Your task to perform on an android device: Go to Yahoo.com Image 0: 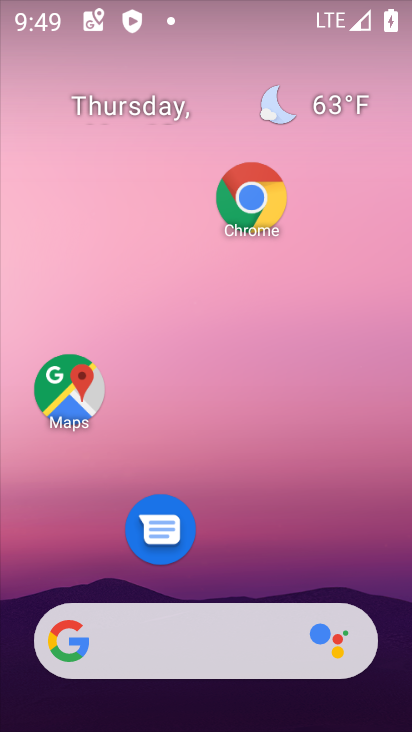
Step 0: drag from (258, 576) to (253, 103)
Your task to perform on an android device: Go to Yahoo.com Image 1: 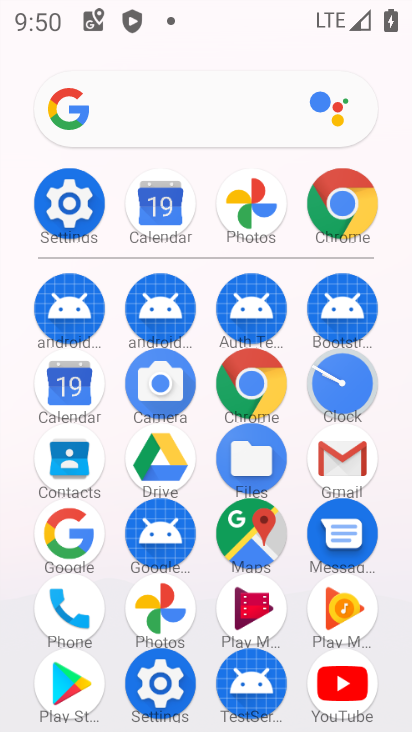
Step 1: click (346, 219)
Your task to perform on an android device: Go to Yahoo.com Image 2: 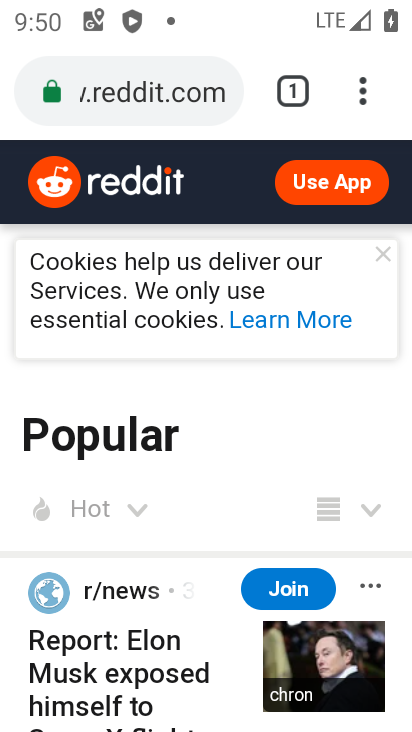
Step 2: click (195, 97)
Your task to perform on an android device: Go to Yahoo.com Image 3: 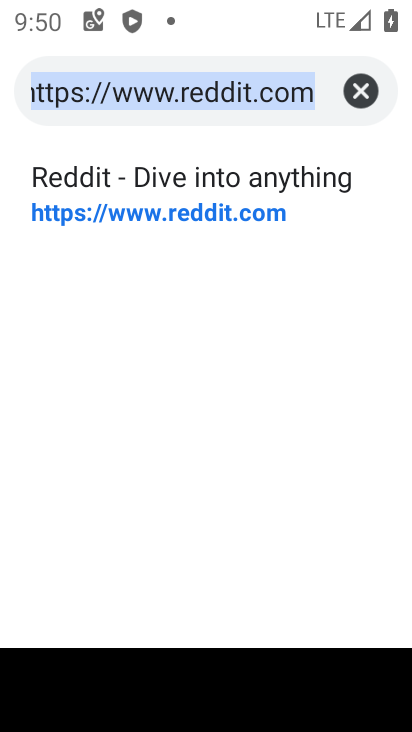
Step 3: type "yahoo"
Your task to perform on an android device: Go to Yahoo.com Image 4: 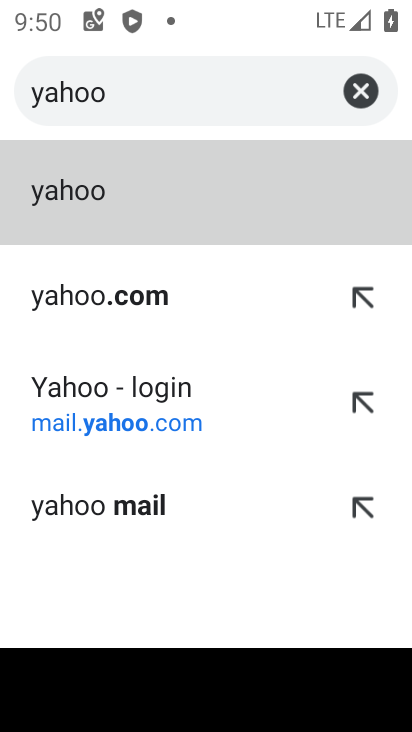
Step 4: click (156, 409)
Your task to perform on an android device: Go to Yahoo.com Image 5: 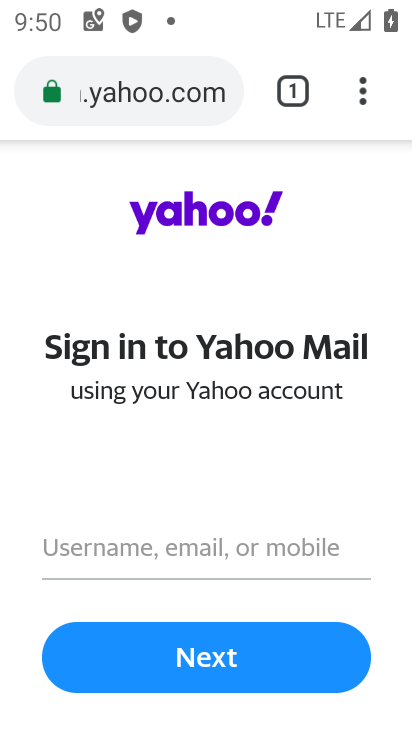
Step 5: task complete